Your task to perform on an android device: turn off priority inbox in the gmail app Image 0: 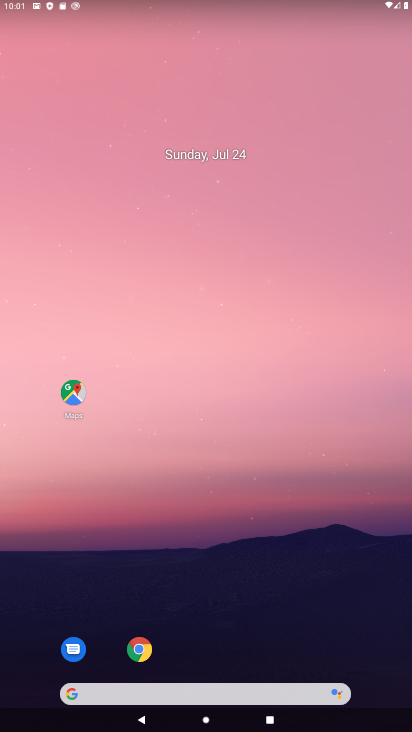
Step 0: drag from (302, 576) to (380, 29)
Your task to perform on an android device: turn off priority inbox in the gmail app Image 1: 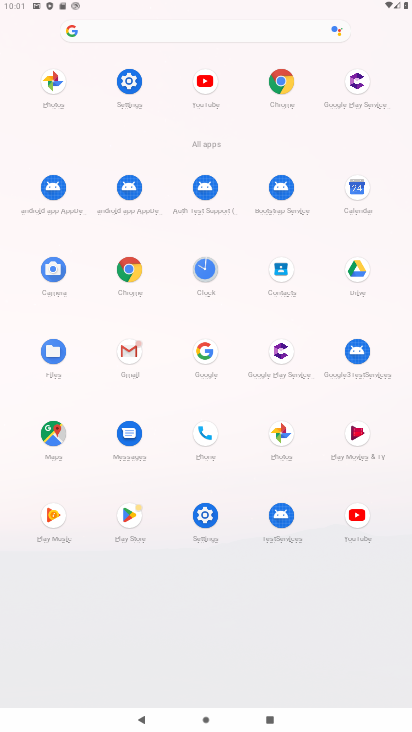
Step 1: click (127, 353)
Your task to perform on an android device: turn off priority inbox in the gmail app Image 2: 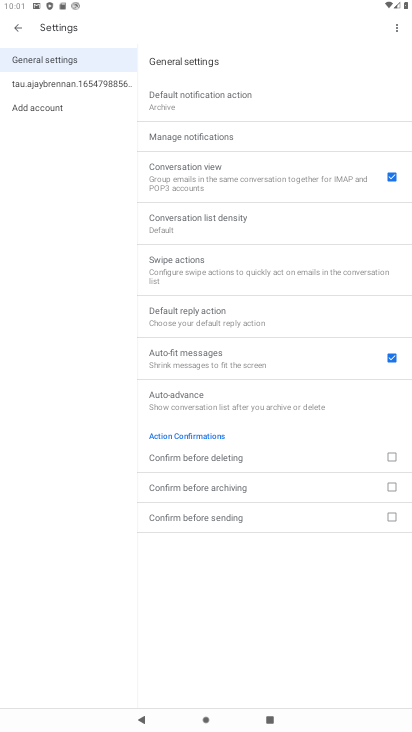
Step 2: click (64, 79)
Your task to perform on an android device: turn off priority inbox in the gmail app Image 3: 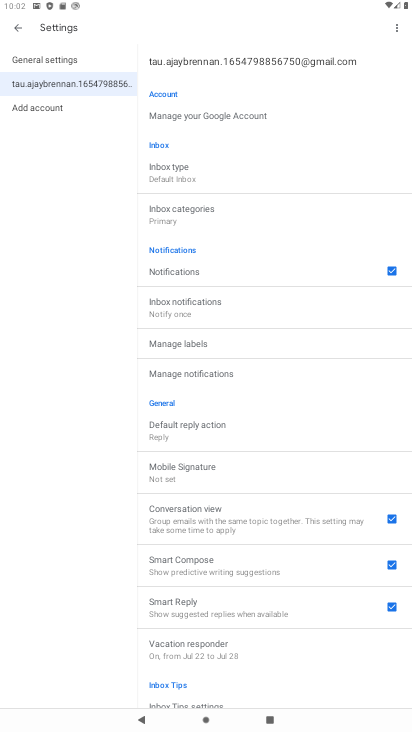
Step 3: click (191, 172)
Your task to perform on an android device: turn off priority inbox in the gmail app Image 4: 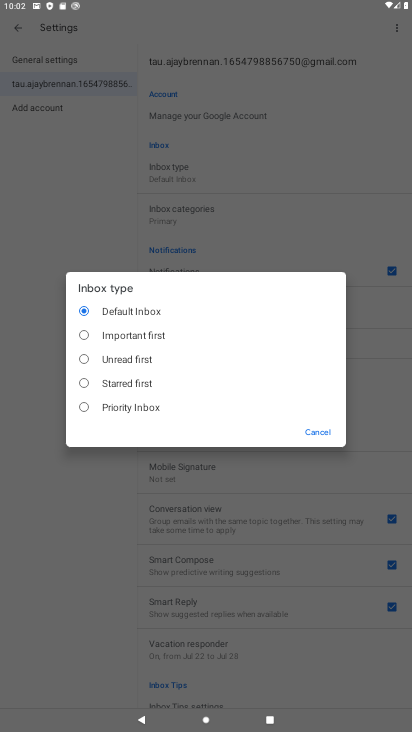
Step 4: task complete